Your task to perform on an android device: turn notification dots off Image 0: 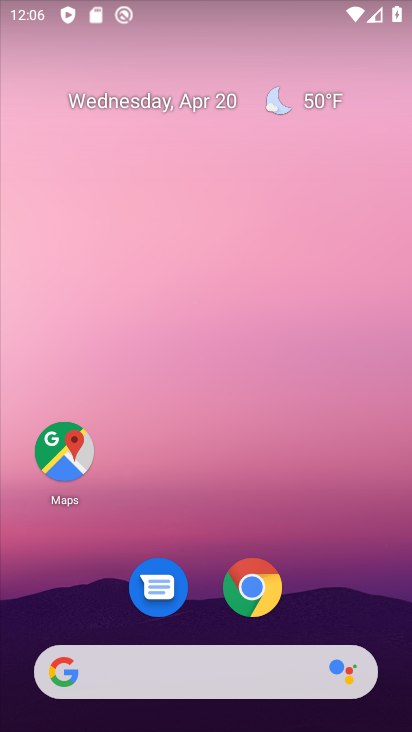
Step 0: drag from (198, 588) to (244, 30)
Your task to perform on an android device: turn notification dots off Image 1: 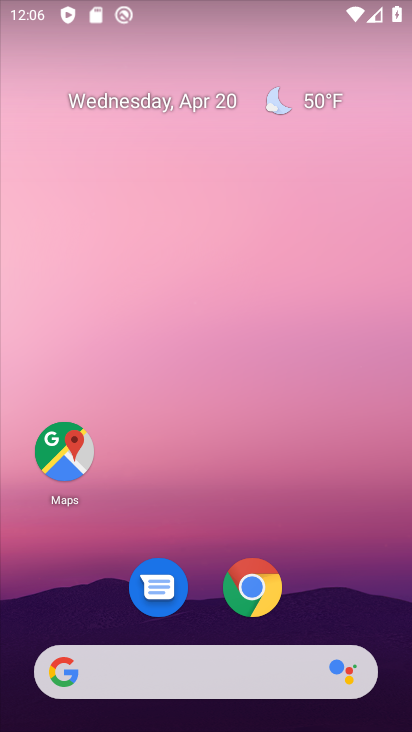
Step 1: drag from (215, 609) to (389, 0)
Your task to perform on an android device: turn notification dots off Image 2: 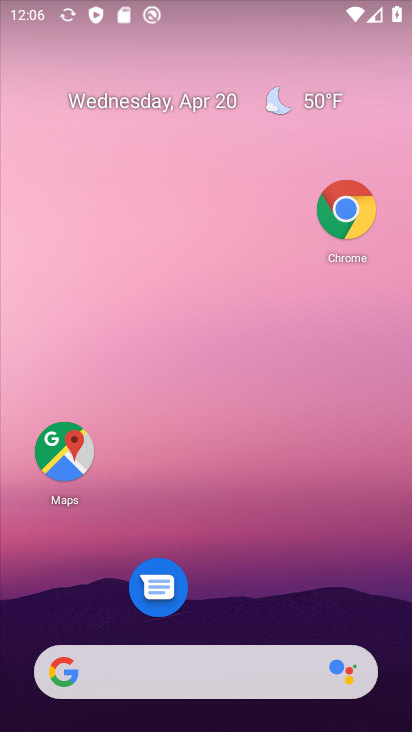
Step 2: drag from (270, 598) to (281, 18)
Your task to perform on an android device: turn notification dots off Image 3: 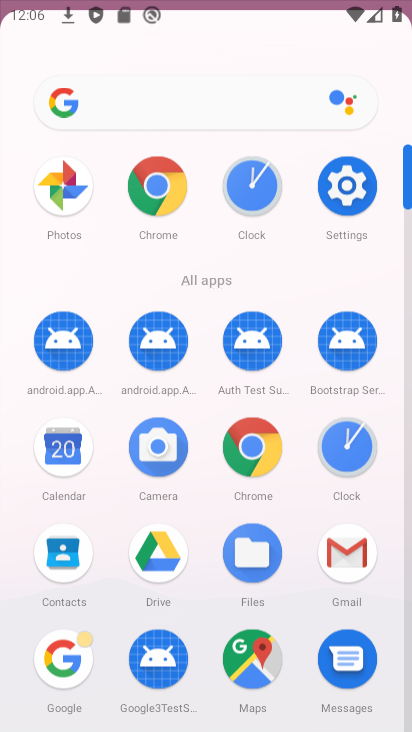
Step 3: click (362, 200)
Your task to perform on an android device: turn notification dots off Image 4: 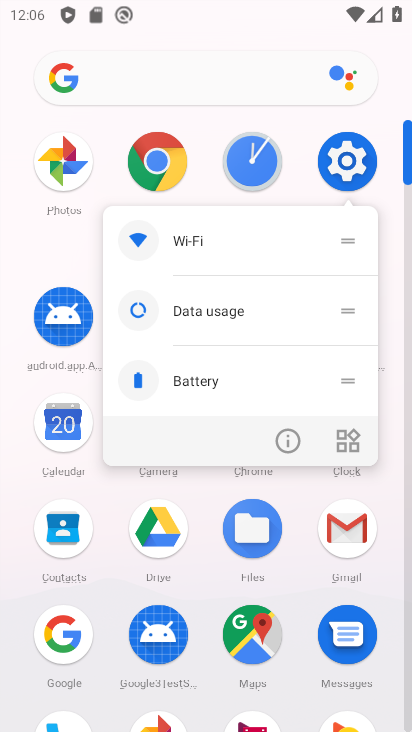
Step 4: click (343, 163)
Your task to perform on an android device: turn notification dots off Image 5: 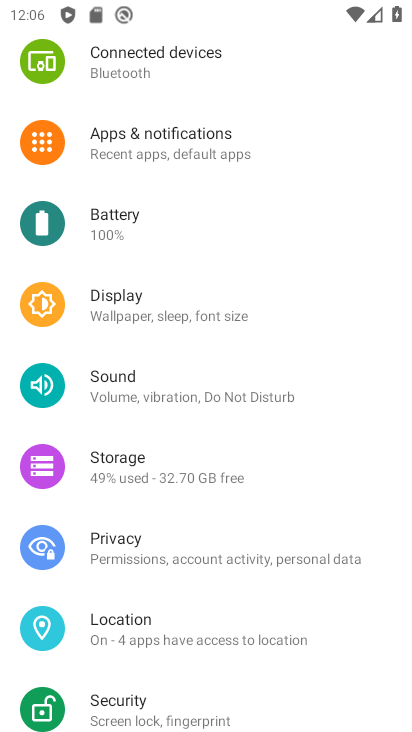
Step 5: click (145, 151)
Your task to perform on an android device: turn notification dots off Image 6: 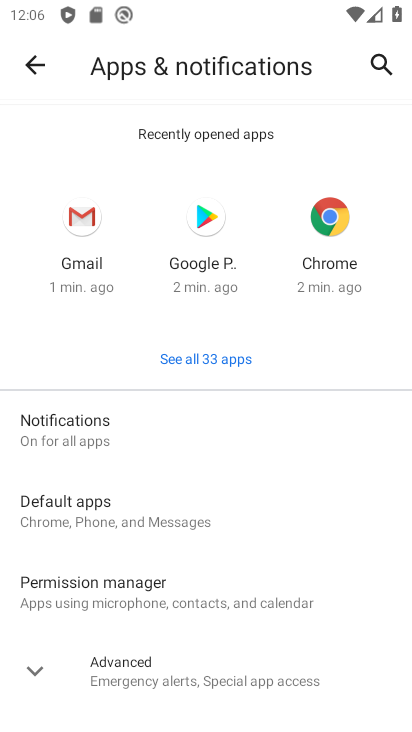
Step 6: click (92, 436)
Your task to perform on an android device: turn notification dots off Image 7: 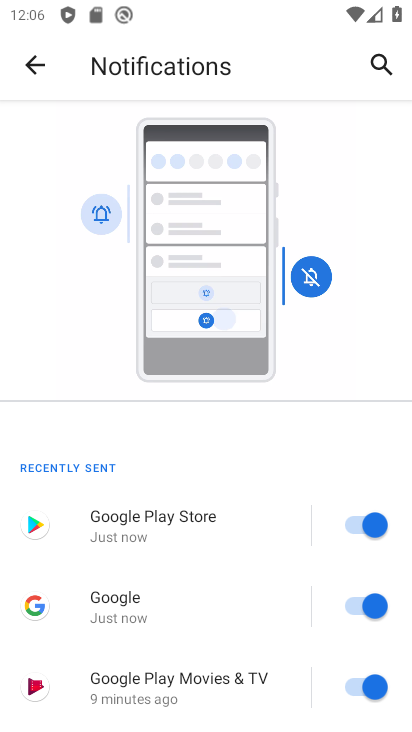
Step 7: drag from (179, 633) to (293, 106)
Your task to perform on an android device: turn notification dots off Image 8: 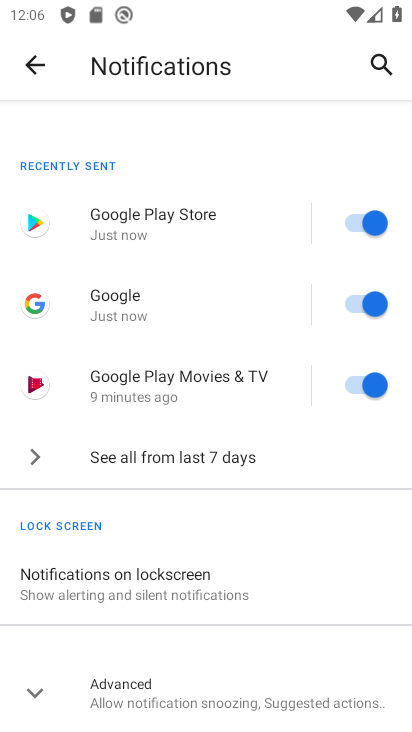
Step 8: drag from (235, 639) to (258, 162)
Your task to perform on an android device: turn notification dots off Image 9: 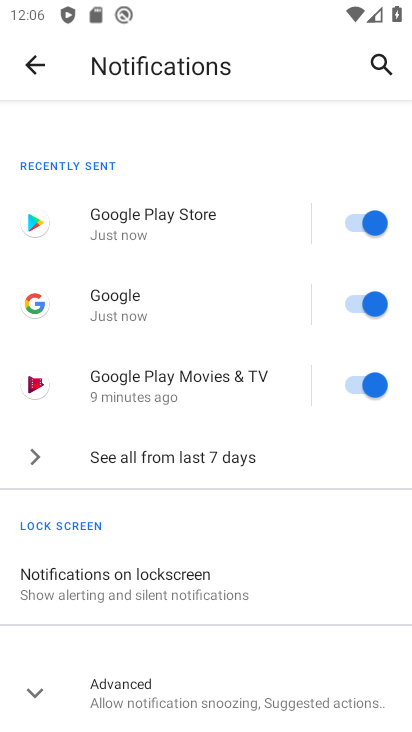
Step 9: click (142, 689)
Your task to perform on an android device: turn notification dots off Image 10: 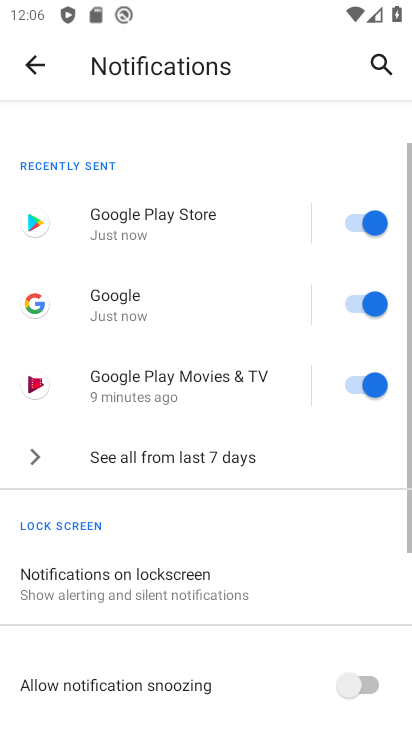
Step 10: drag from (158, 643) to (238, 191)
Your task to perform on an android device: turn notification dots off Image 11: 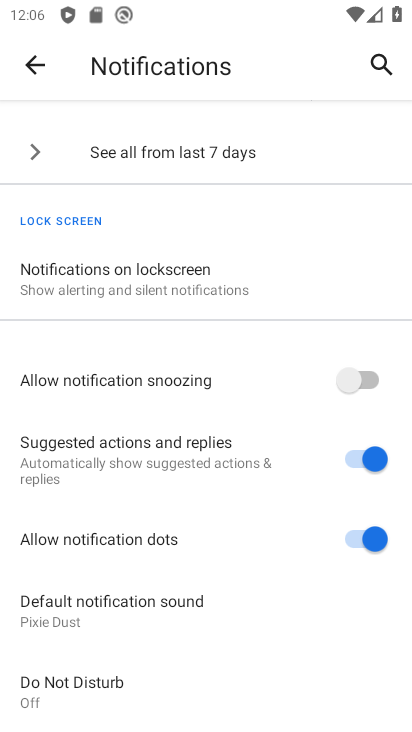
Step 11: click (356, 540)
Your task to perform on an android device: turn notification dots off Image 12: 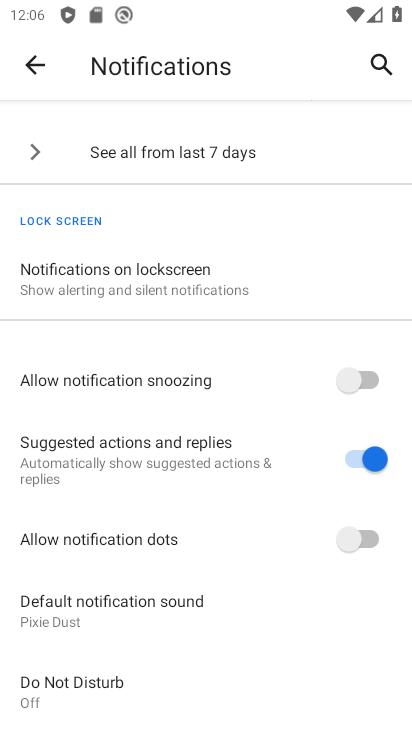
Step 12: task complete